Your task to perform on an android device: open device folders in google photos Image 0: 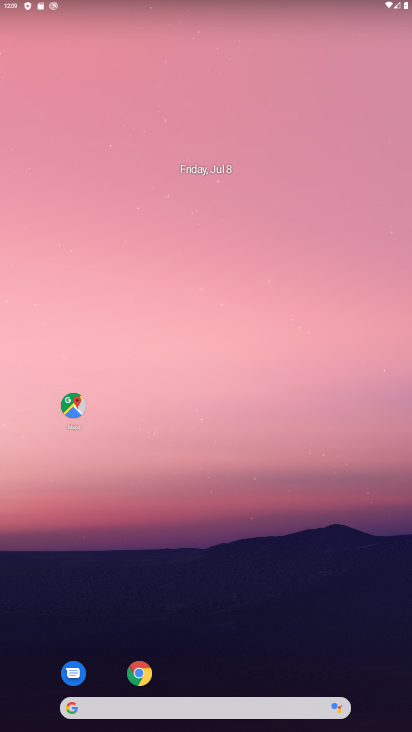
Step 0: drag from (217, 665) to (217, 160)
Your task to perform on an android device: open device folders in google photos Image 1: 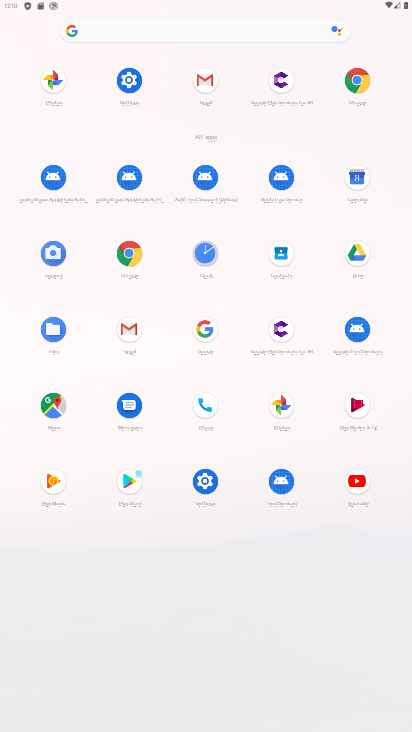
Step 1: click (283, 401)
Your task to perform on an android device: open device folders in google photos Image 2: 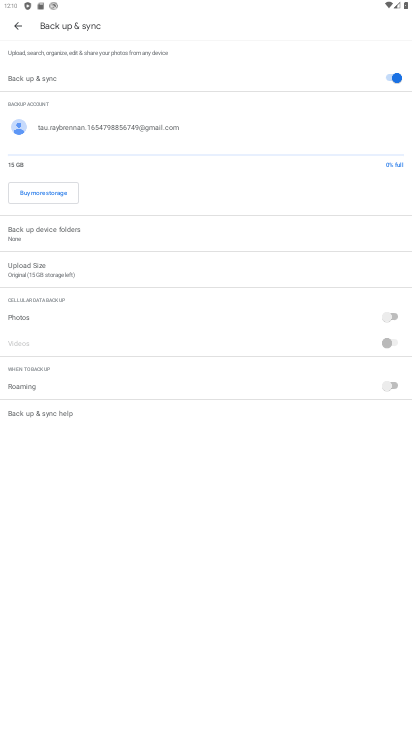
Step 2: press back button
Your task to perform on an android device: open device folders in google photos Image 3: 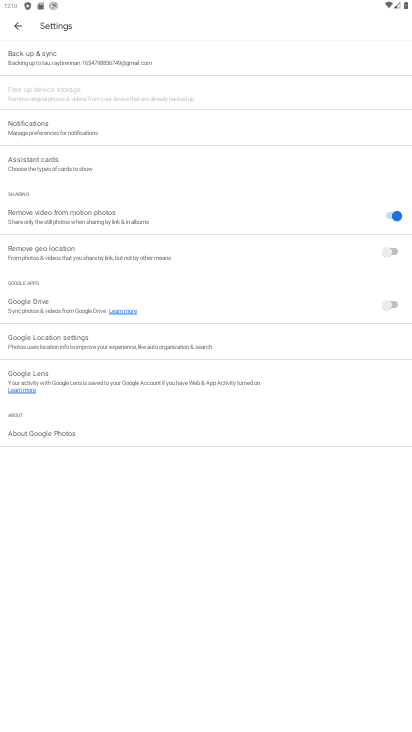
Step 3: press back button
Your task to perform on an android device: open device folders in google photos Image 4: 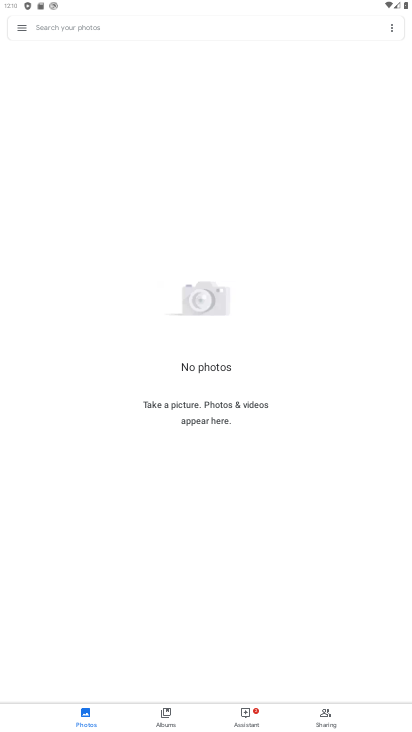
Step 4: click (25, 23)
Your task to perform on an android device: open device folders in google photos Image 5: 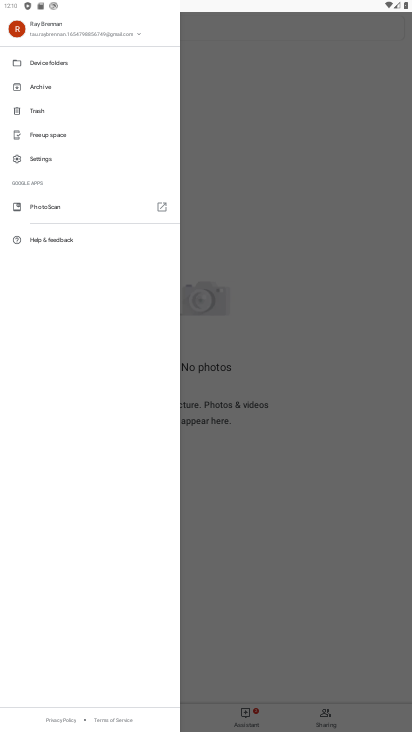
Step 5: click (53, 61)
Your task to perform on an android device: open device folders in google photos Image 6: 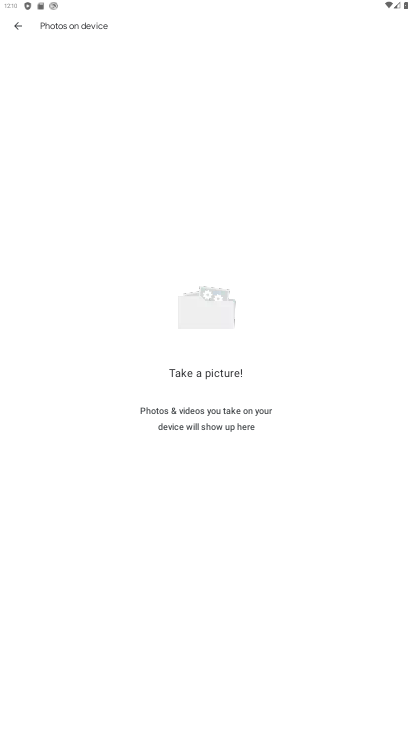
Step 6: task complete